Your task to perform on an android device: What is the recent news? Image 0: 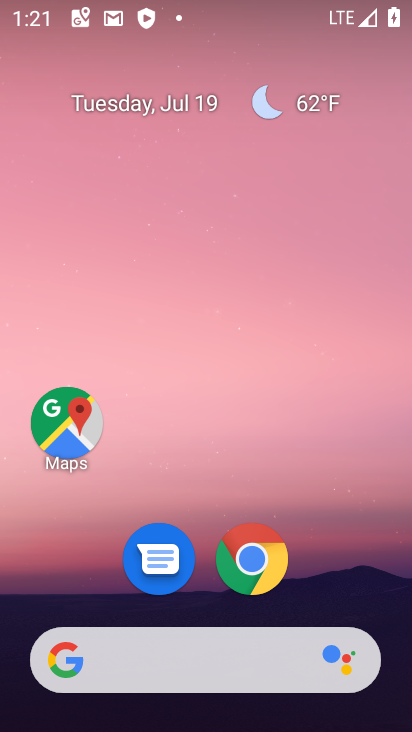
Step 0: drag from (260, 645) to (314, 108)
Your task to perform on an android device: What is the recent news? Image 1: 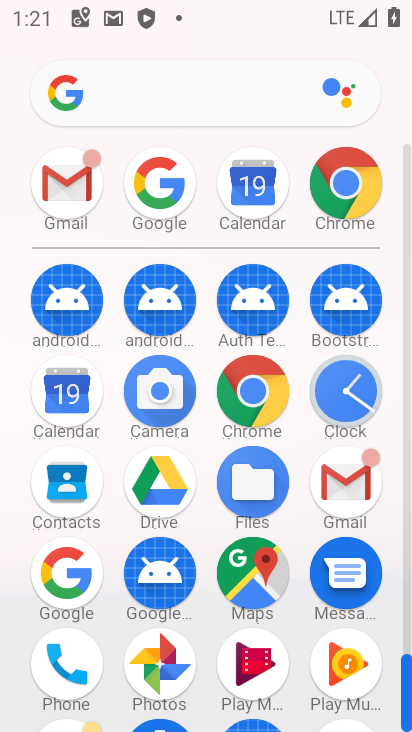
Step 1: click (88, 575)
Your task to perform on an android device: What is the recent news? Image 2: 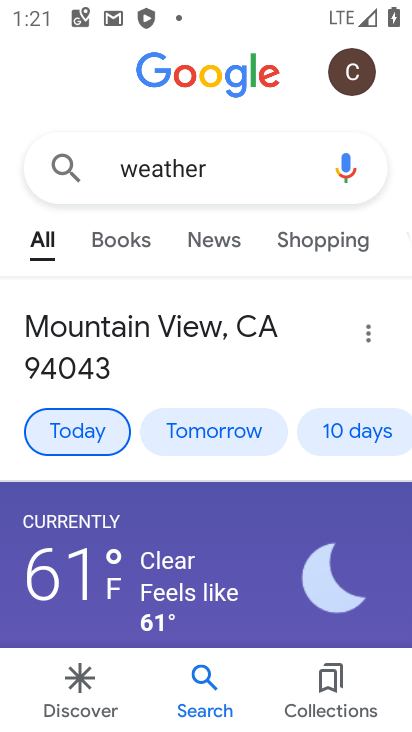
Step 2: click (267, 189)
Your task to perform on an android device: What is the recent news? Image 3: 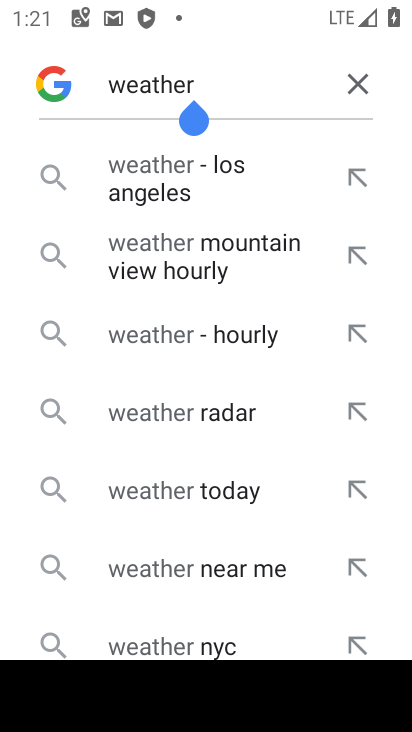
Step 3: click (355, 90)
Your task to perform on an android device: What is the recent news? Image 4: 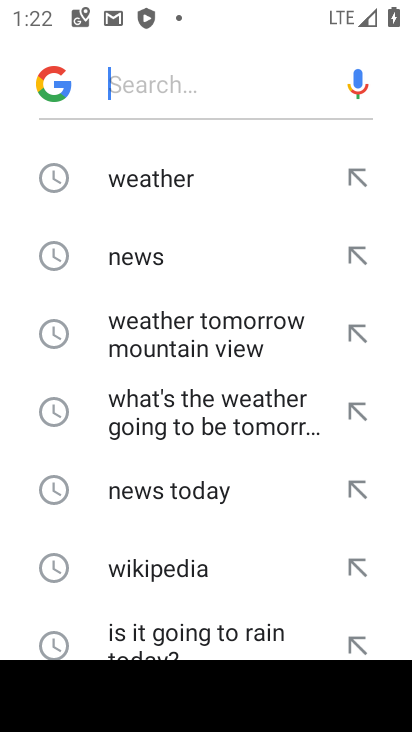
Step 4: click (147, 269)
Your task to perform on an android device: What is the recent news? Image 5: 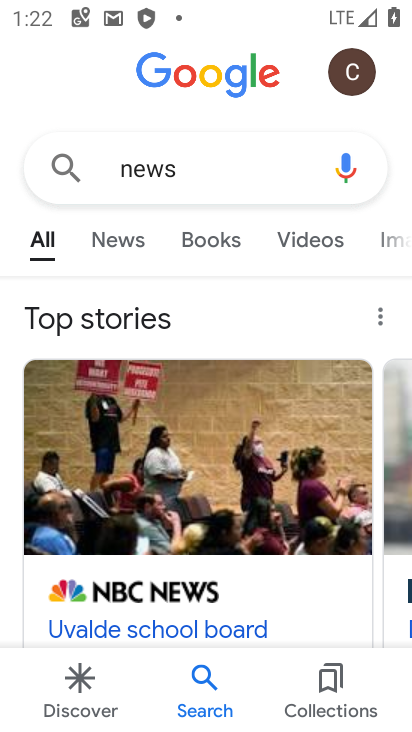
Step 5: click (124, 235)
Your task to perform on an android device: What is the recent news? Image 6: 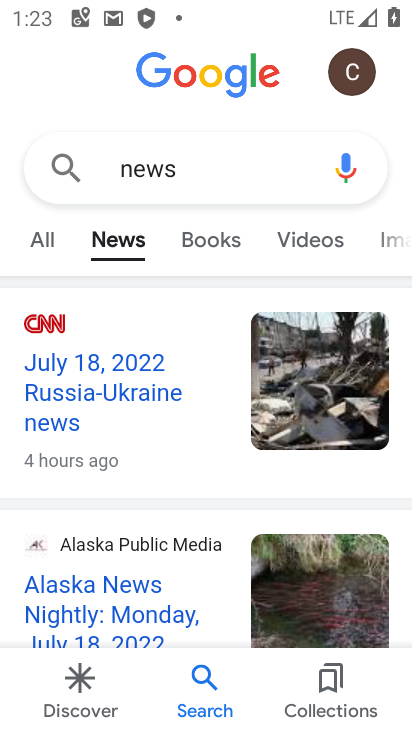
Step 6: task complete